Your task to perform on an android device: Go to Reddit.com Image 0: 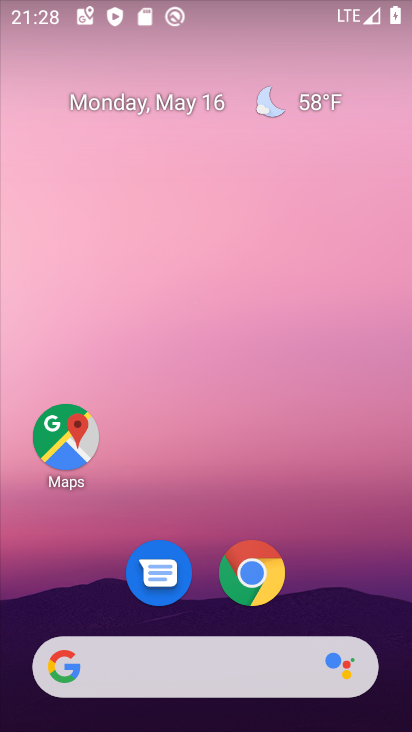
Step 0: click (258, 572)
Your task to perform on an android device: Go to Reddit.com Image 1: 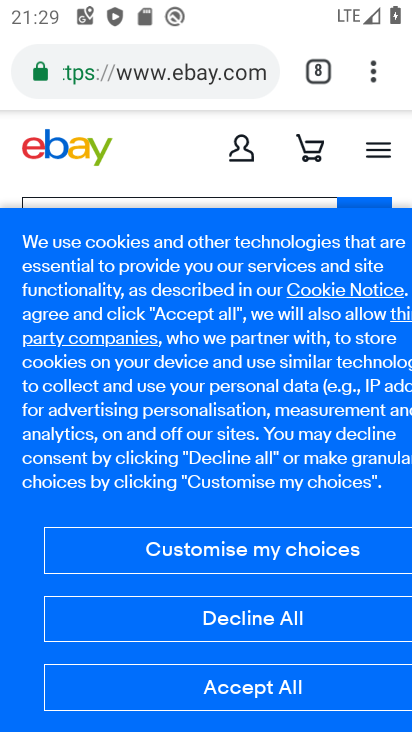
Step 1: click (374, 94)
Your task to perform on an android device: Go to Reddit.com Image 2: 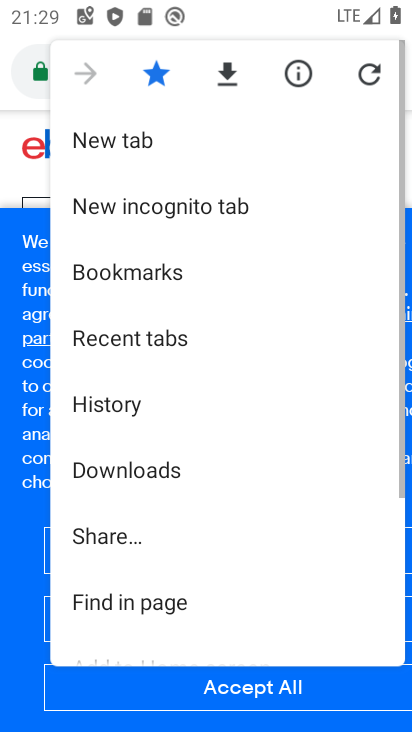
Step 2: click (102, 142)
Your task to perform on an android device: Go to Reddit.com Image 3: 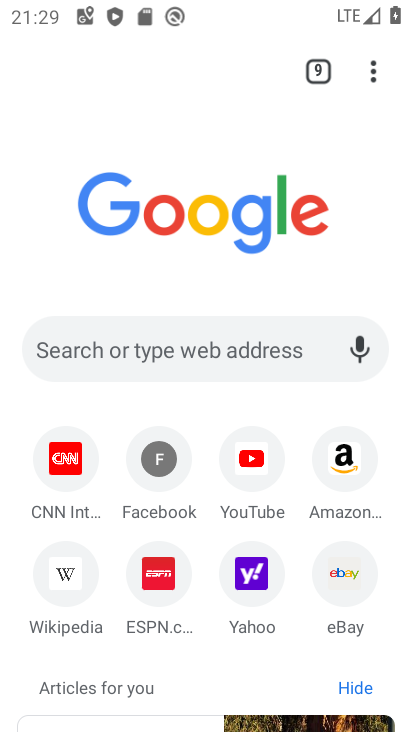
Step 3: click (190, 347)
Your task to perform on an android device: Go to Reddit.com Image 4: 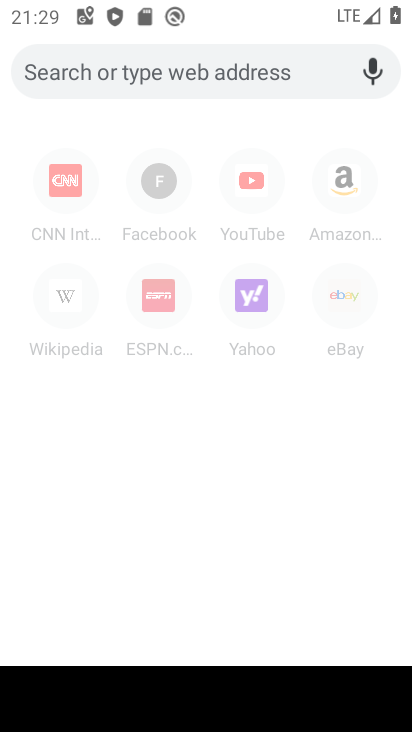
Step 4: type "Reddit.com"
Your task to perform on an android device: Go to Reddit.com Image 5: 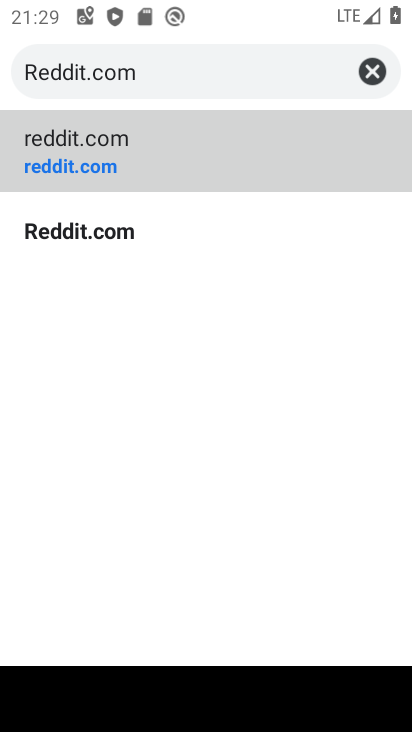
Step 5: click (88, 140)
Your task to perform on an android device: Go to Reddit.com Image 6: 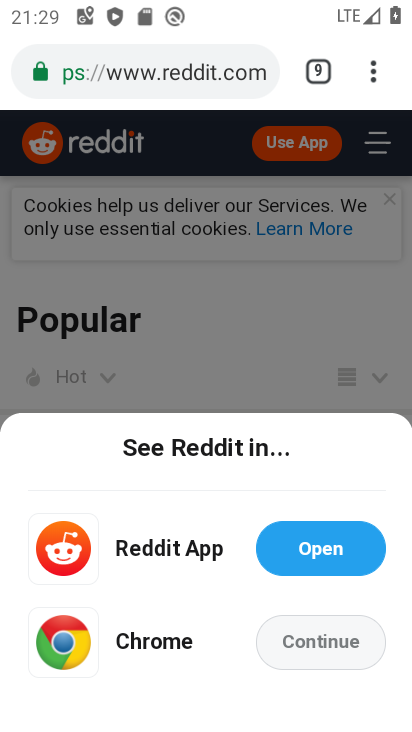
Step 6: task complete